Your task to perform on an android device: turn on wifi Image 0: 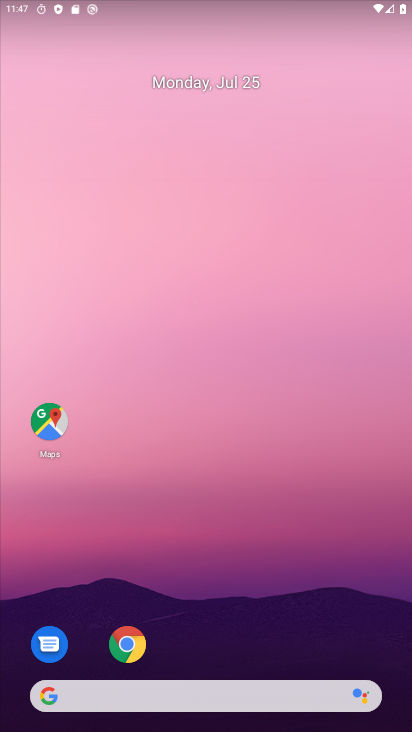
Step 0: drag from (231, 612) to (177, 1)
Your task to perform on an android device: turn on wifi Image 1: 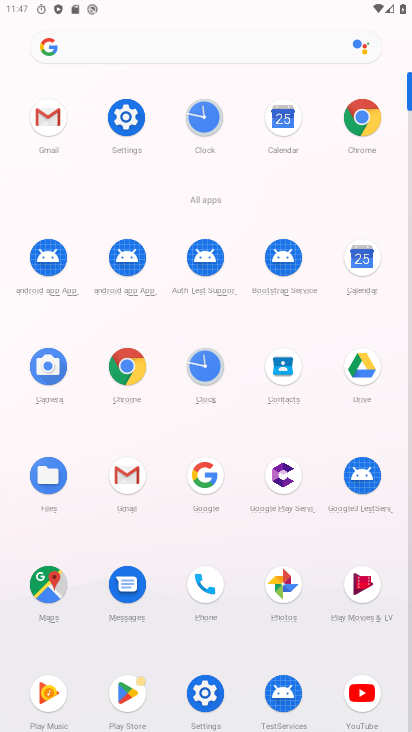
Step 1: click (131, 120)
Your task to perform on an android device: turn on wifi Image 2: 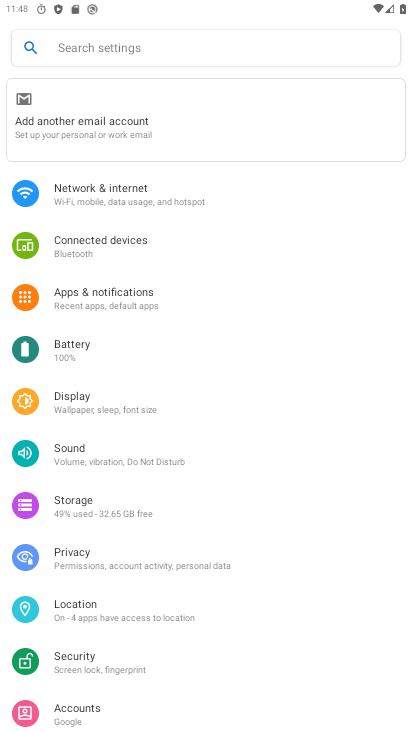
Step 2: click (60, 207)
Your task to perform on an android device: turn on wifi Image 3: 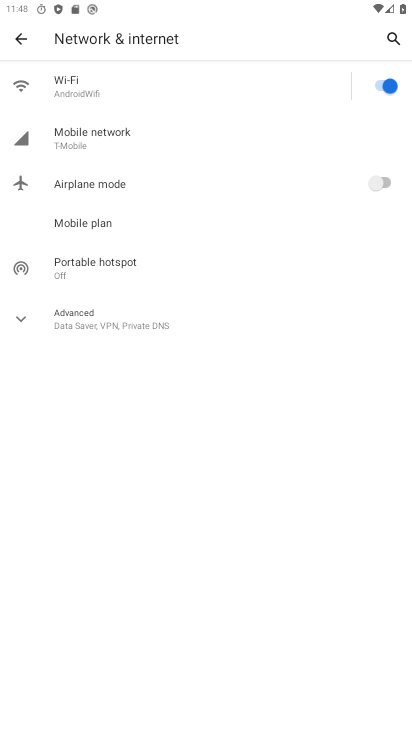
Step 3: task complete